Your task to perform on an android device: check android version Image 0: 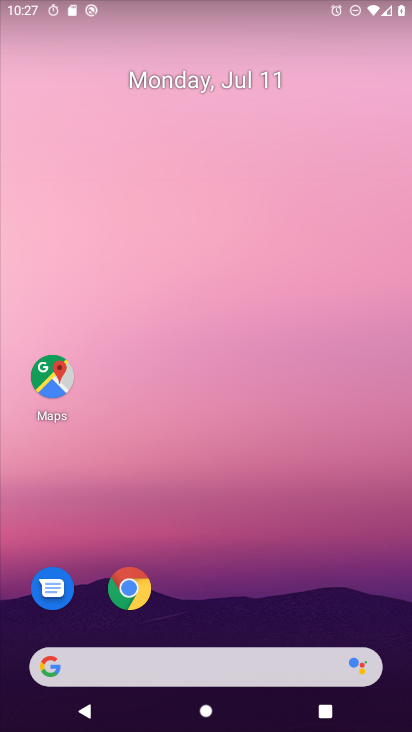
Step 0: drag from (238, 612) to (298, 43)
Your task to perform on an android device: check android version Image 1: 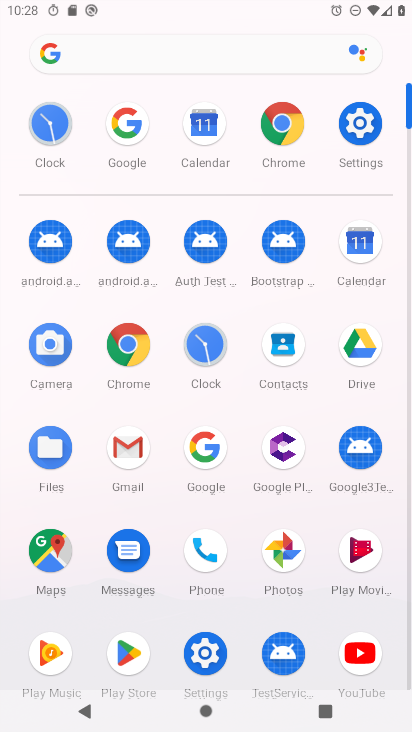
Step 1: click (363, 121)
Your task to perform on an android device: check android version Image 2: 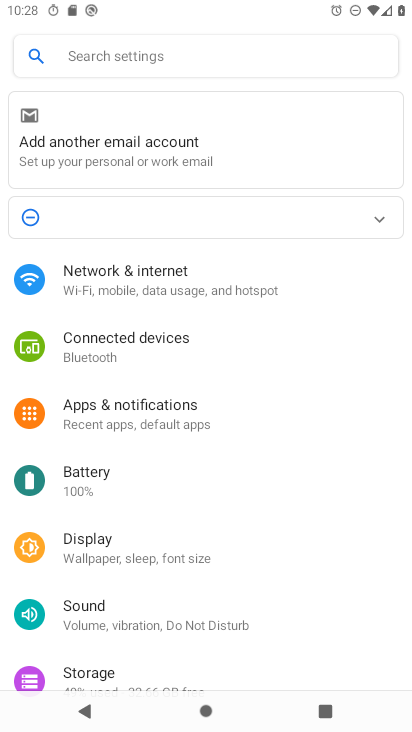
Step 2: drag from (96, 676) to (189, 0)
Your task to perform on an android device: check android version Image 3: 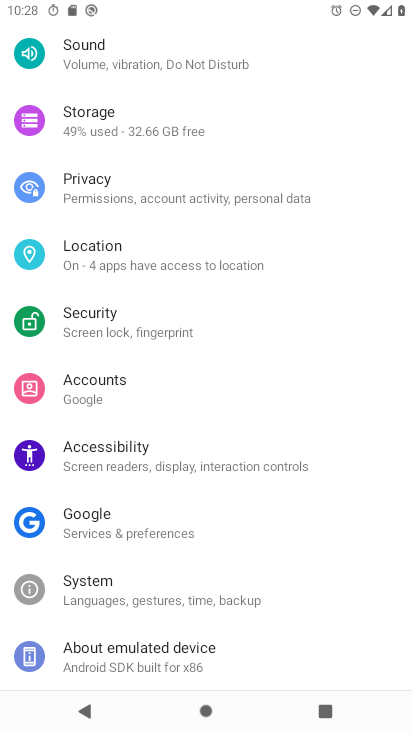
Step 3: click (104, 584)
Your task to perform on an android device: check android version Image 4: 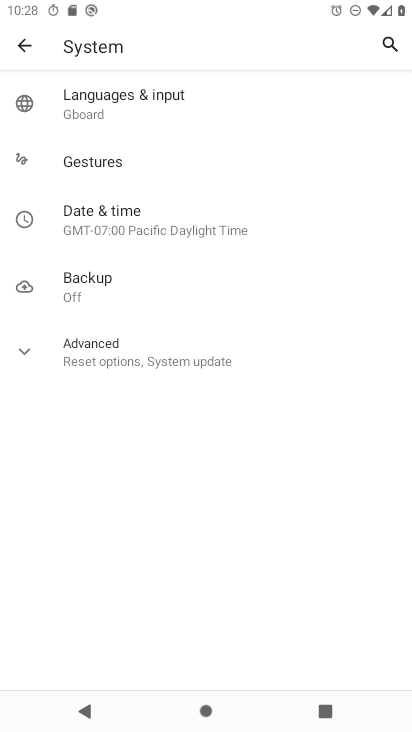
Step 4: click (27, 46)
Your task to perform on an android device: check android version Image 5: 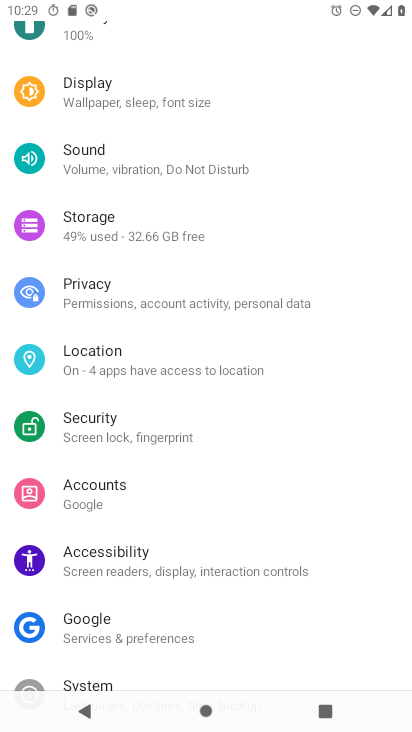
Step 5: drag from (118, 638) to (213, 73)
Your task to perform on an android device: check android version Image 6: 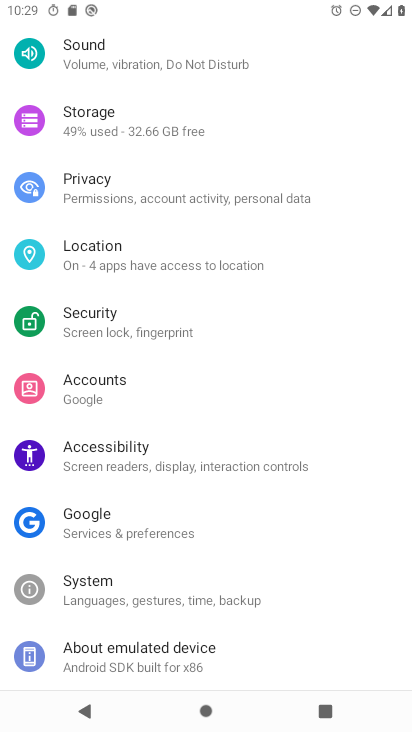
Step 6: click (141, 656)
Your task to perform on an android device: check android version Image 7: 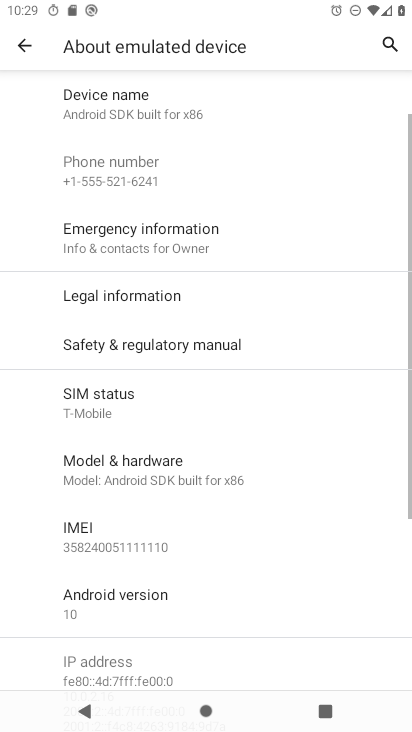
Step 7: click (130, 595)
Your task to perform on an android device: check android version Image 8: 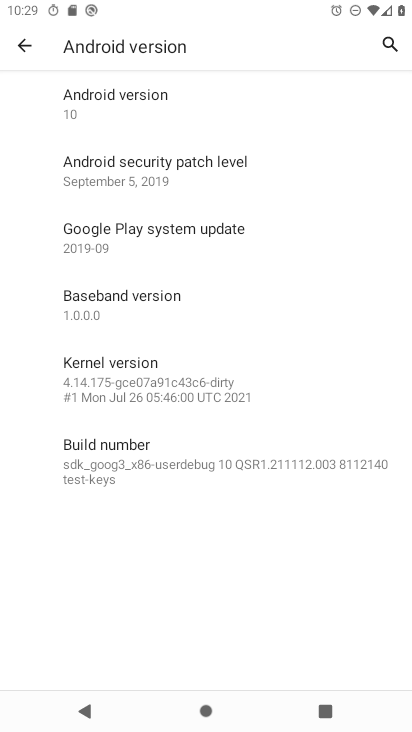
Step 8: click (118, 113)
Your task to perform on an android device: check android version Image 9: 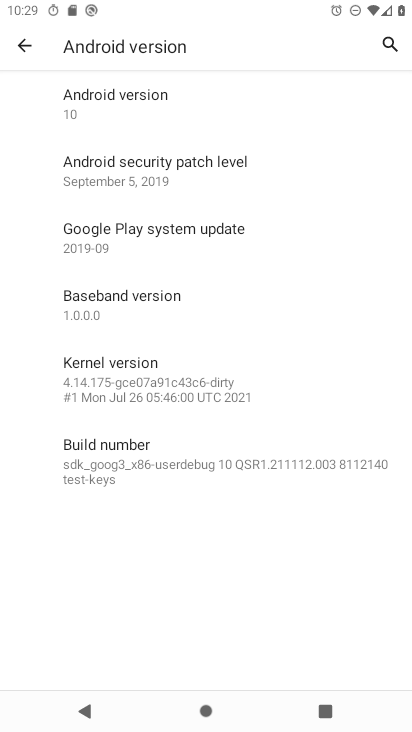
Step 9: task complete